Your task to perform on an android device: Search for seafood restaurants on Google Maps Image 0: 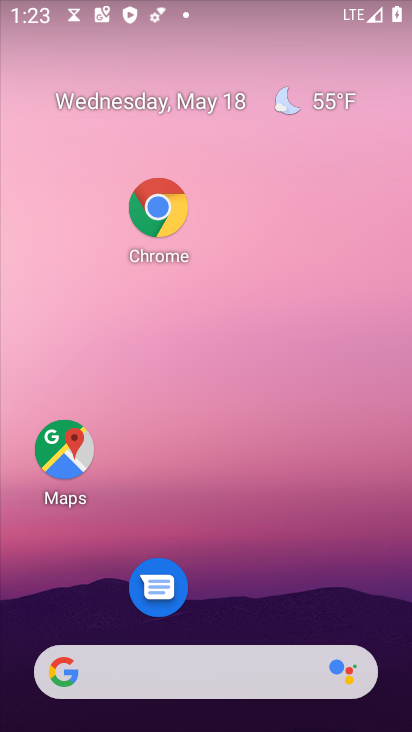
Step 0: click (57, 460)
Your task to perform on an android device: Search for seafood restaurants on Google Maps Image 1: 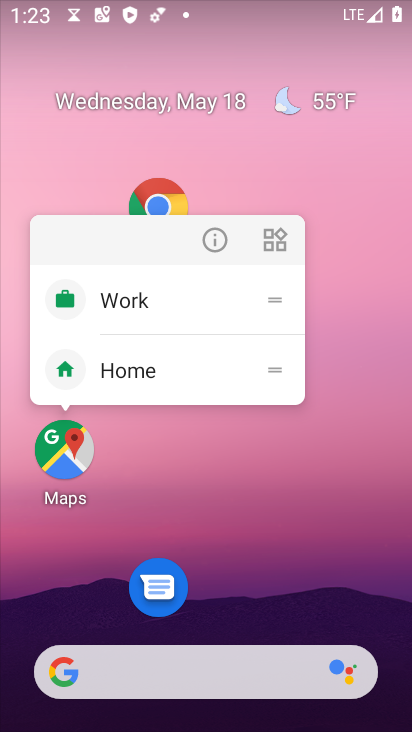
Step 1: click (64, 460)
Your task to perform on an android device: Search for seafood restaurants on Google Maps Image 2: 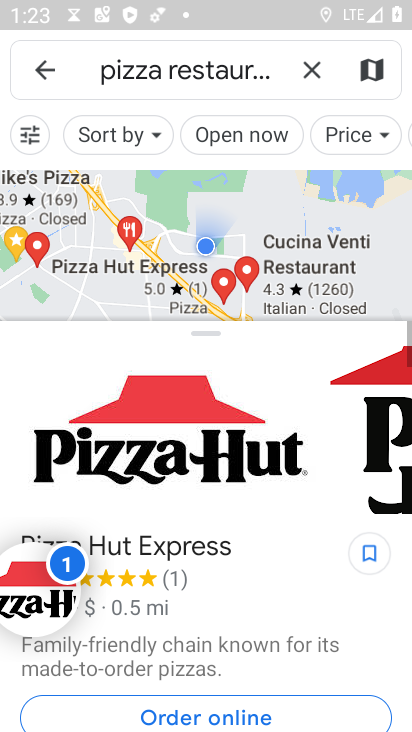
Step 2: click (64, 460)
Your task to perform on an android device: Search for seafood restaurants on Google Maps Image 3: 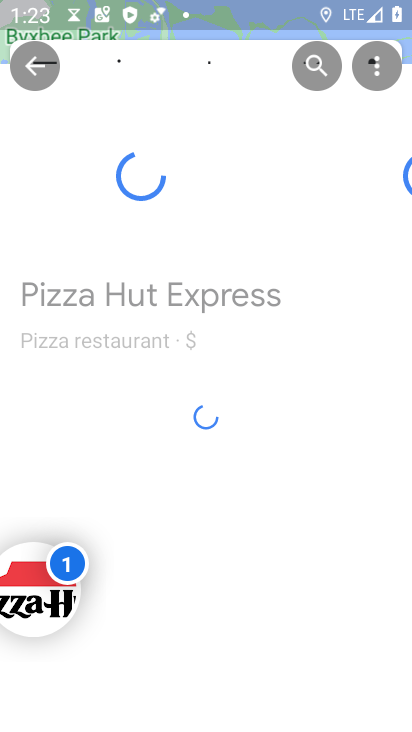
Step 3: click (316, 66)
Your task to perform on an android device: Search for seafood restaurants on Google Maps Image 4: 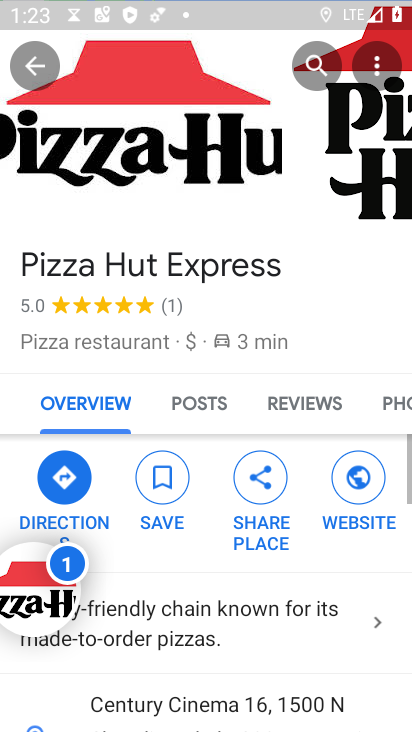
Step 4: press back button
Your task to perform on an android device: Search for seafood restaurants on Google Maps Image 5: 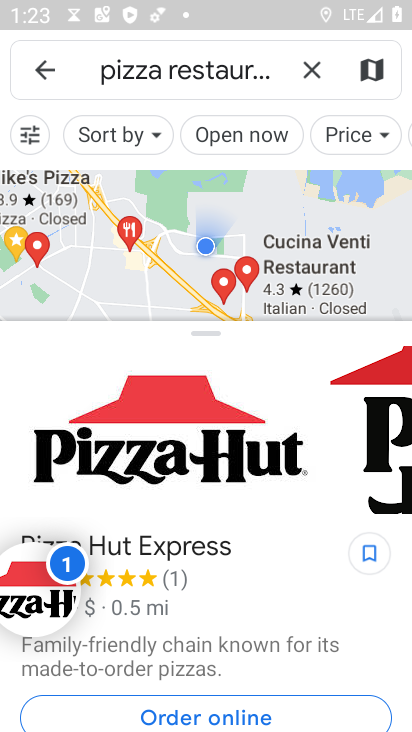
Step 5: click (312, 68)
Your task to perform on an android device: Search for seafood restaurants on Google Maps Image 6: 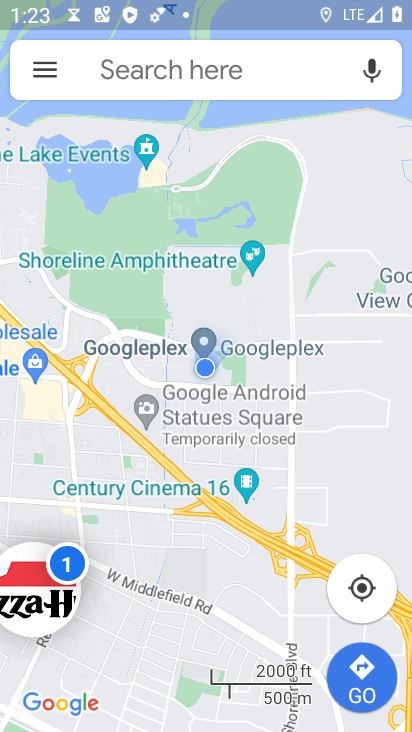
Step 6: click (221, 70)
Your task to perform on an android device: Search for seafood restaurants on Google Maps Image 7: 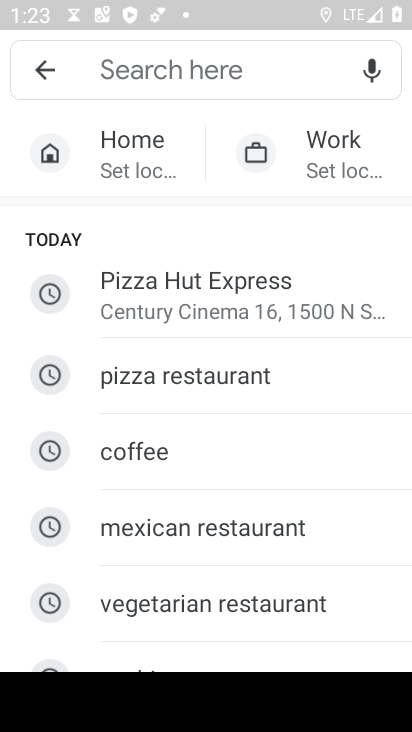
Step 7: type "seafood restaurants"
Your task to perform on an android device: Search for seafood restaurants on Google Maps Image 8: 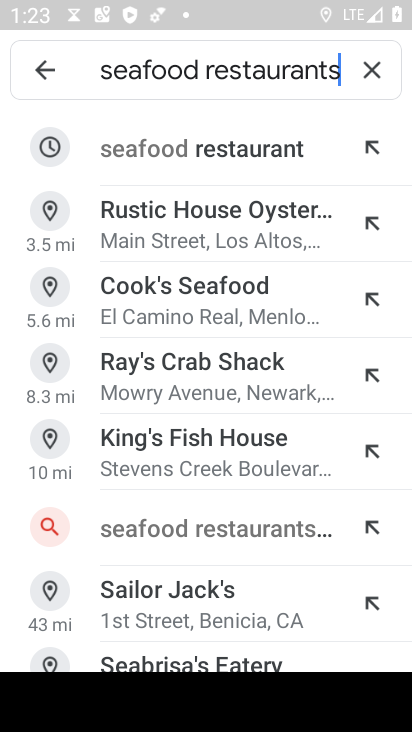
Step 8: click (245, 158)
Your task to perform on an android device: Search for seafood restaurants on Google Maps Image 9: 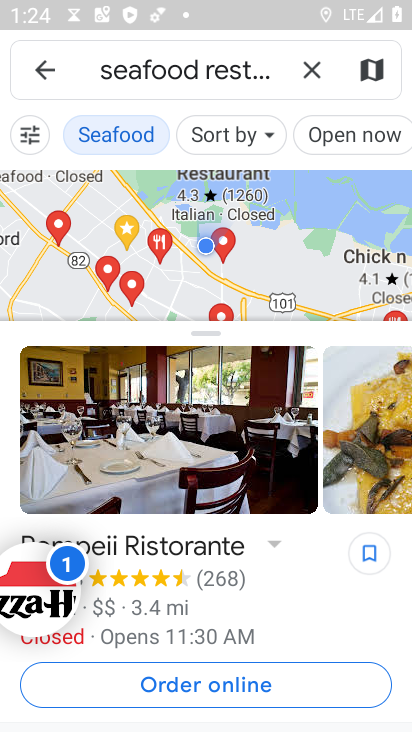
Step 9: task complete